Your task to perform on an android device: turn on notifications settings in the gmail app Image 0: 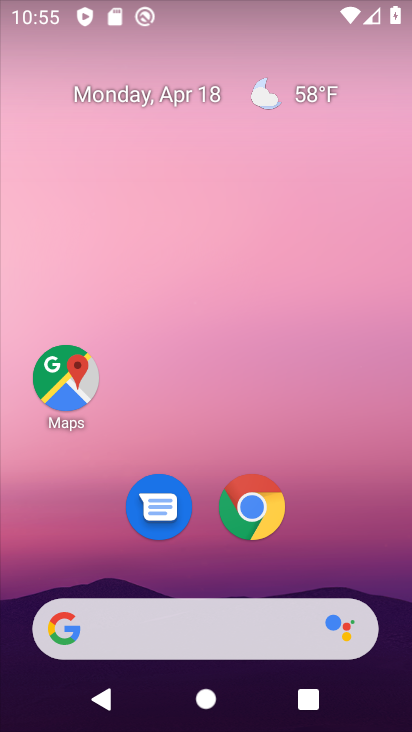
Step 0: drag from (220, 577) to (172, 39)
Your task to perform on an android device: turn on notifications settings in the gmail app Image 1: 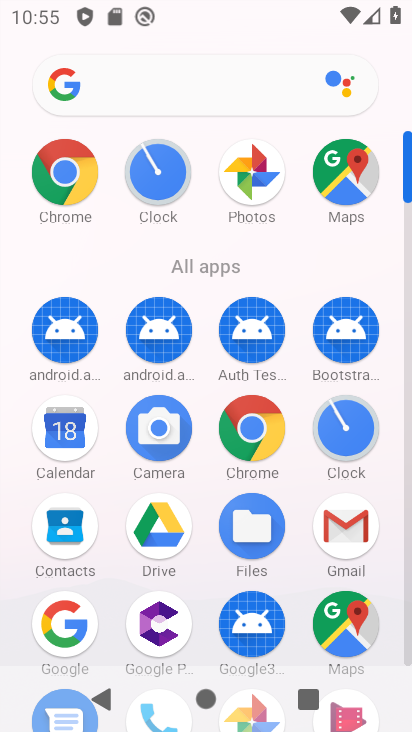
Step 1: click (347, 519)
Your task to perform on an android device: turn on notifications settings in the gmail app Image 2: 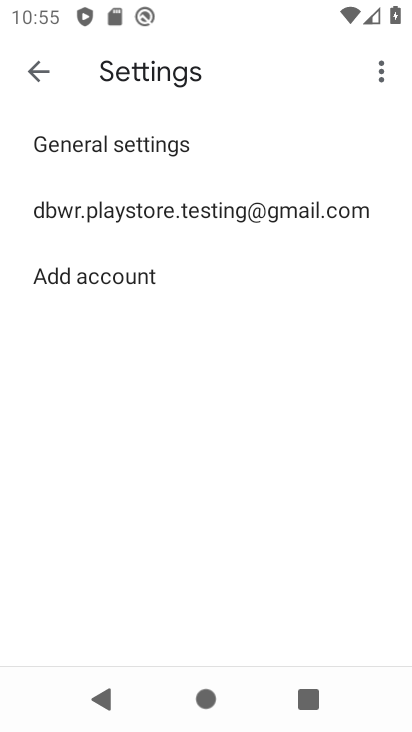
Step 2: click (110, 202)
Your task to perform on an android device: turn on notifications settings in the gmail app Image 3: 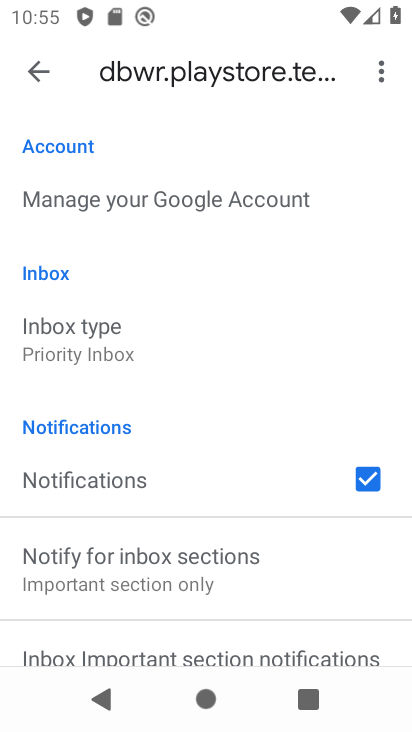
Step 3: click (199, 453)
Your task to perform on an android device: turn on notifications settings in the gmail app Image 4: 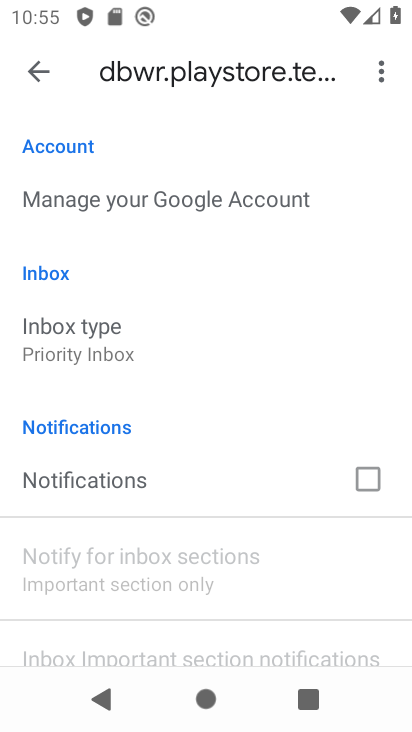
Step 4: click (142, 475)
Your task to perform on an android device: turn on notifications settings in the gmail app Image 5: 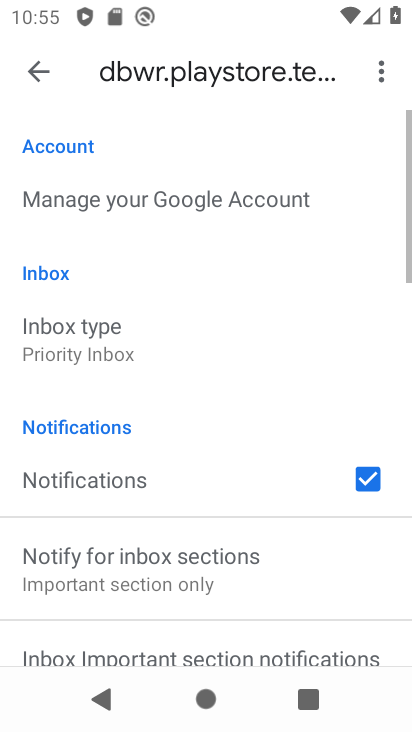
Step 5: task complete